Your task to perform on an android device: Go to sound settings Image 0: 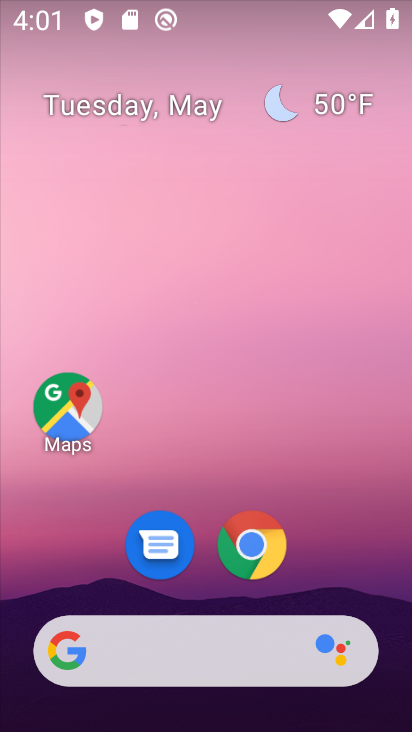
Step 0: drag from (206, 548) to (305, 7)
Your task to perform on an android device: Go to sound settings Image 1: 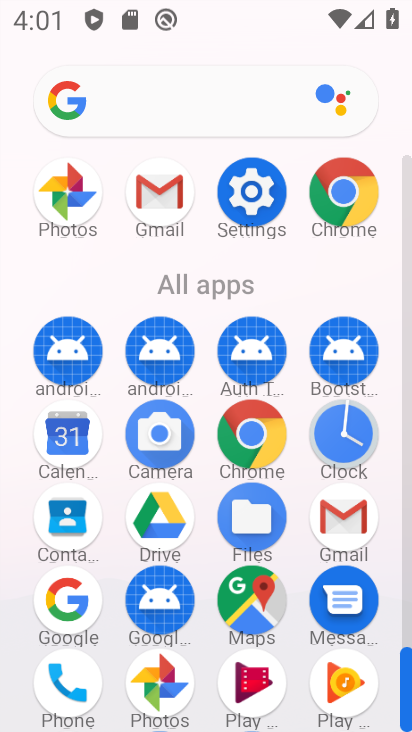
Step 1: click (258, 211)
Your task to perform on an android device: Go to sound settings Image 2: 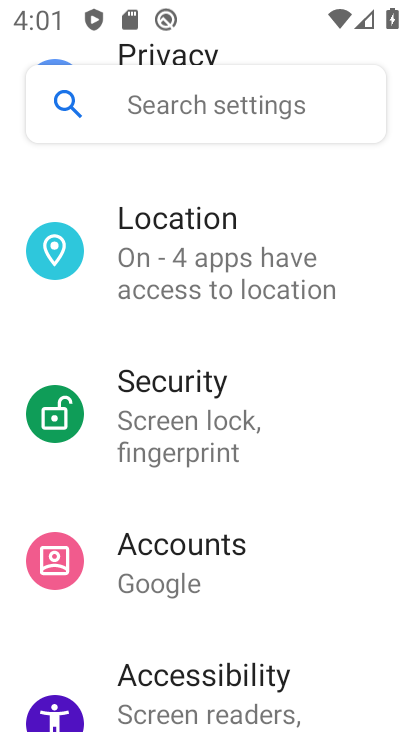
Step 2: drag from (262, 257) to (251, 627)
Your task to perform on an android device: Go to sound settings Image 3: 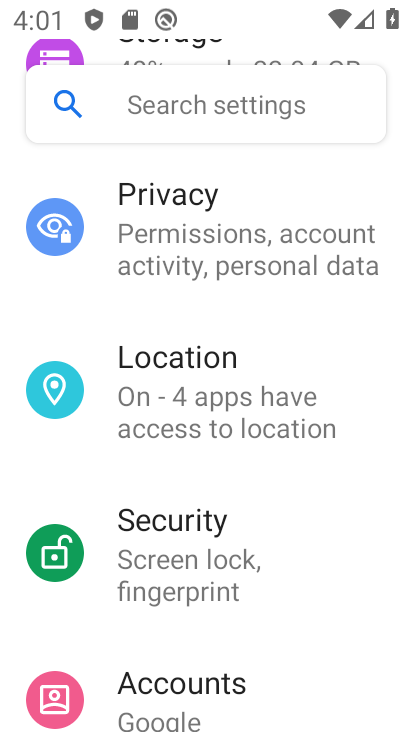
Step 3: drag from (217, 340) to (232, 725)
Your task to perform on an android device: Go to sound settings Image 4: 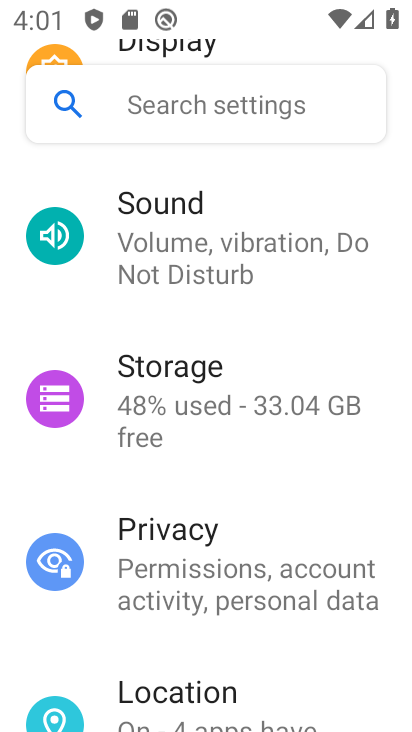
Step 4: click (187, 243)
Your task to perform on an android device: Go to sound settings Image 5: 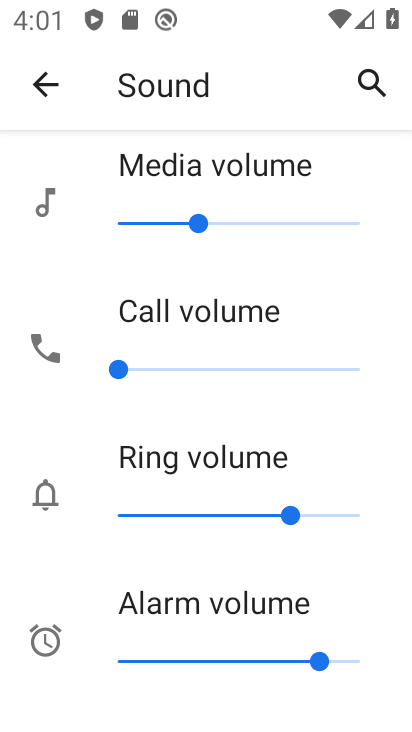
Step 5: task complete